Your task to perform on an android device: turn on the 24-hour format for clock Image 0: 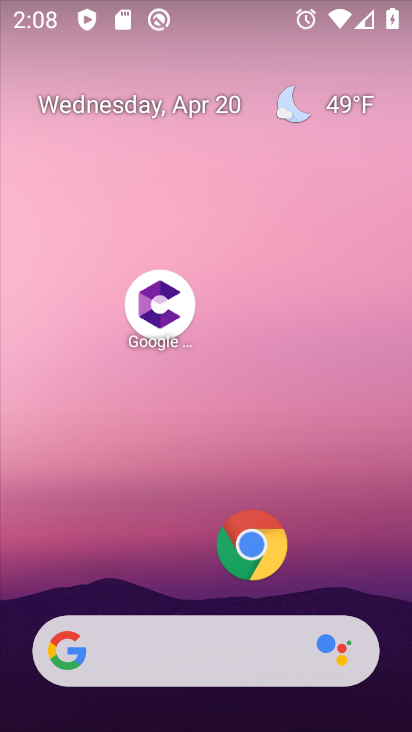
Step 0: drag from (163, 564) to (260, 83)
Your task to perform on an android device: turn on the 24-hour format for clock Image 1: 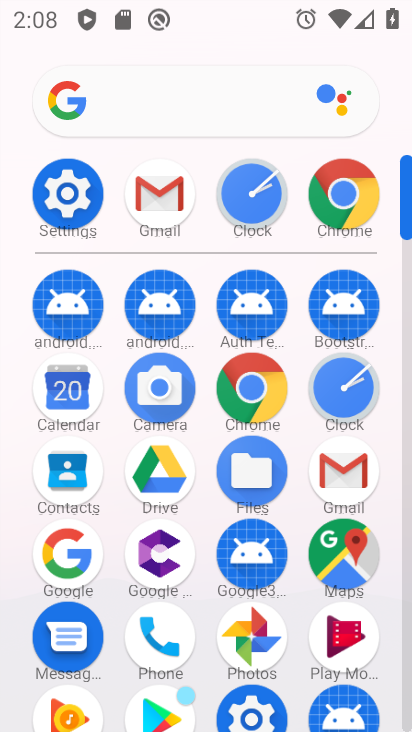
Step 1: click (251, 195)
Your task to perform on an android device: turn on the 24-hour format for clock Image 2: 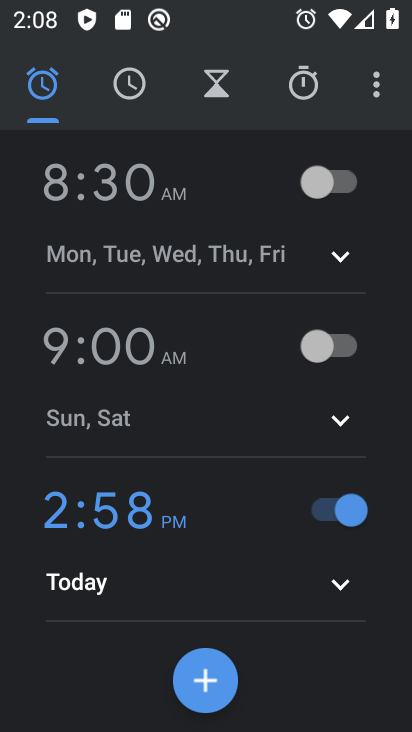
Step 2: click (384, 89)
Your task to perform on an android device: turn on the 24-hour format for clock Image 3: 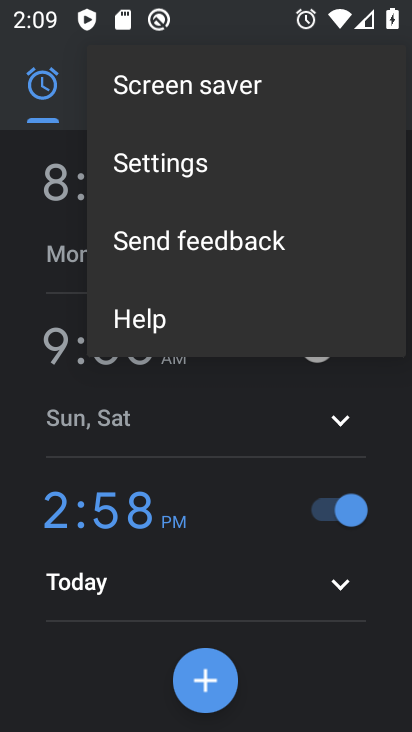
Step 3: click (169, 166)
Your task to perform on an android device: turn on the 24-hour format for clock Image 4: 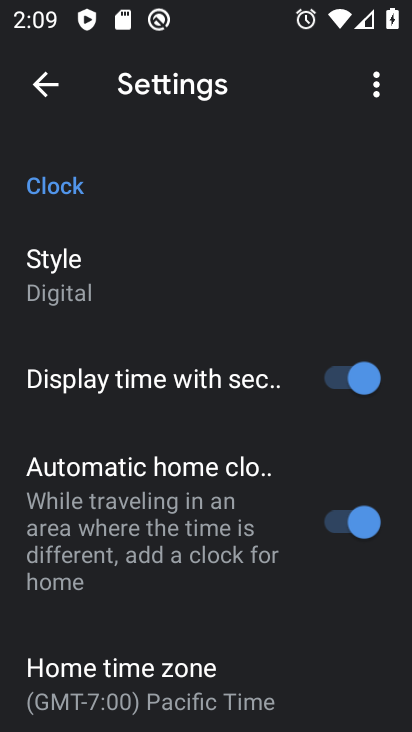
Step 4: drag from (132, 621) to (246, 341)
Your task to perform on an android device: turn on the 24-hour format for clock Image 5: 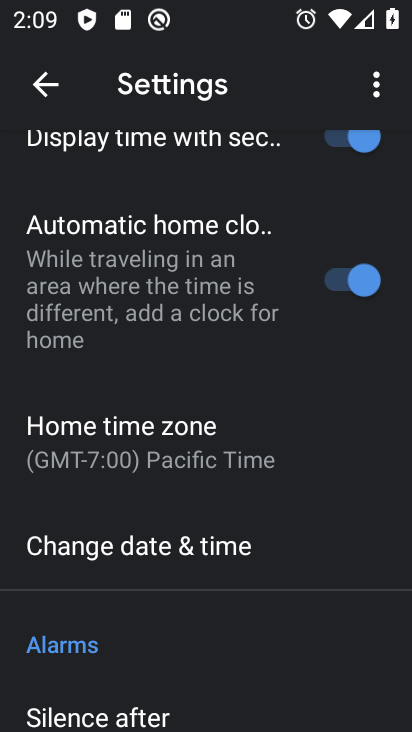
Step 5: click (189, 540)
Your task to perform on an android device: turn on the 24-hour format for clock Image 6: 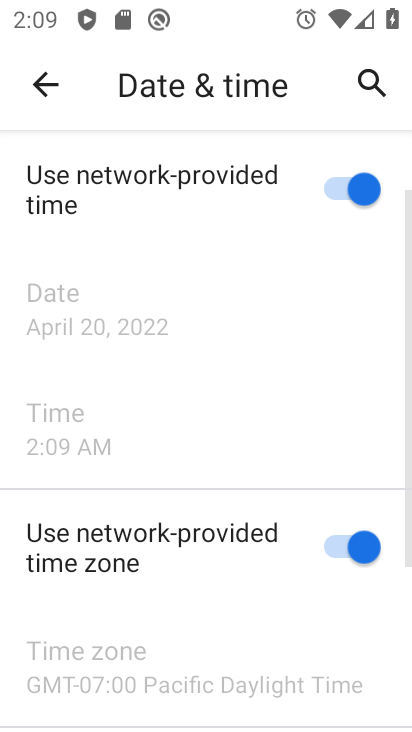
Step 6: drag from (200, 588) to (254, 442)
Your task to perform on an android device: turn on the 24-hour format for clock Image 7: 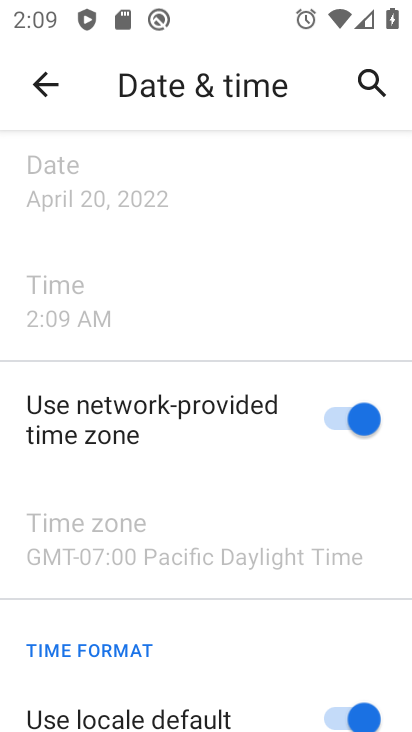
Step 7: drag from (198, 644) to (282, 438)
Your task to perform on an android device: turn on the 24-hour format for clock Image 8: 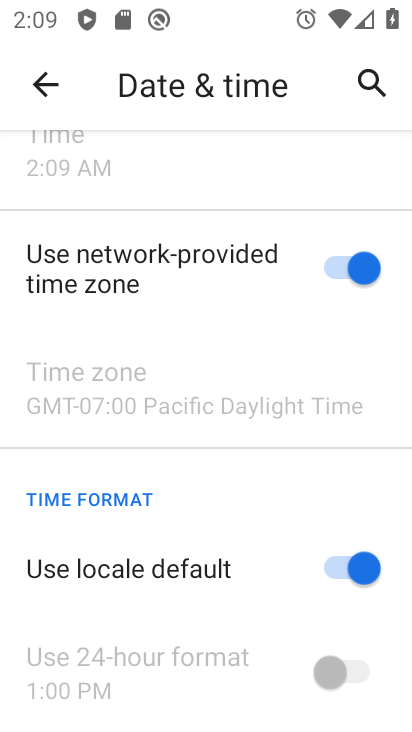
Step 8: click (368, 571)
Your task to perform on an android device: turn on the 24-hour format for clock Image 9: 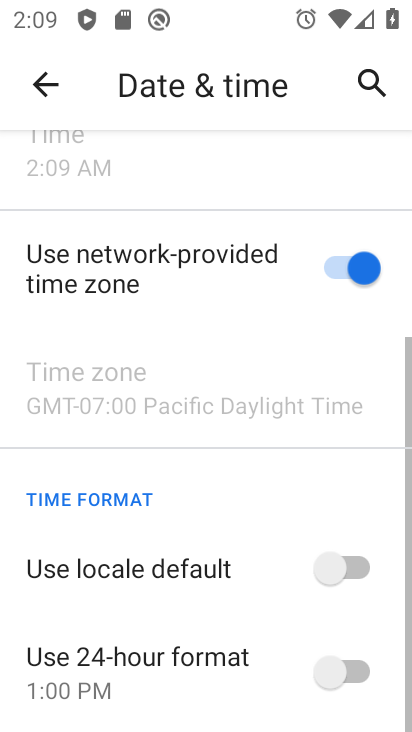
Step 9: click (337, 675)
Your task to perform on an android device: turn on the 24-hour format for clock Image 10: 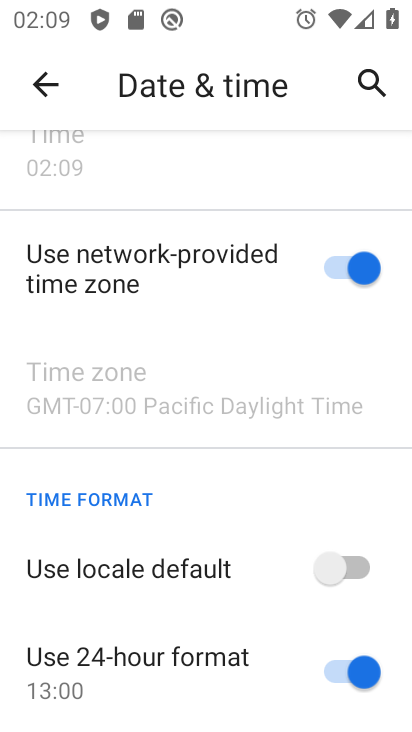
Step 10: task complete